Your task to perform on an android device: What's on my calendar tomorrow? Image 0: 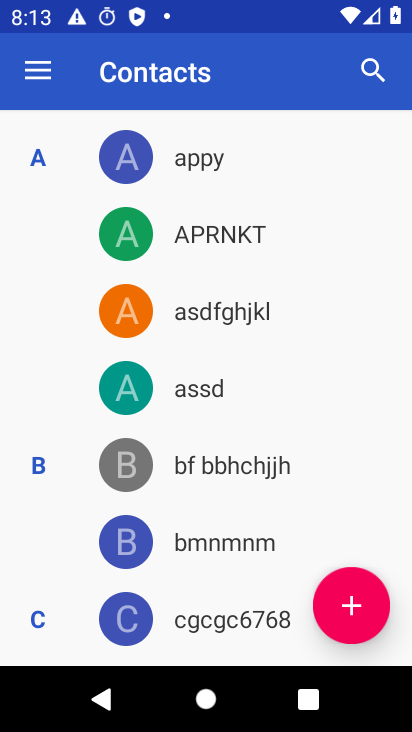
Step 0: press home button
Your task to perform on an android device: What's on my calendar tomorrow? Image 1: 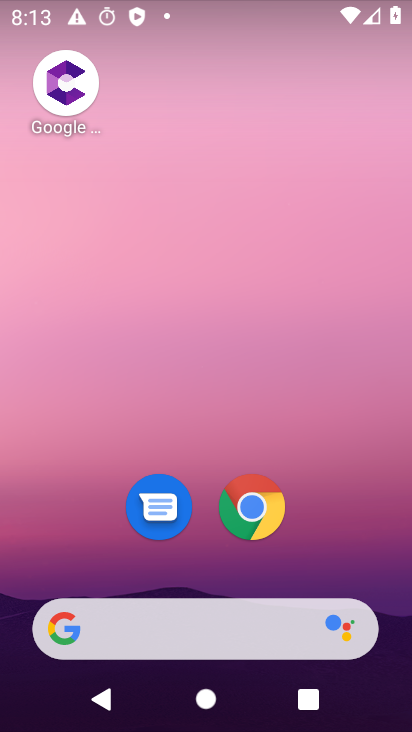
Step 1: drag from (208, 622) to (371, 37)
Your task to perform on an android device: What's on my calendar tomorrow? Image 2: 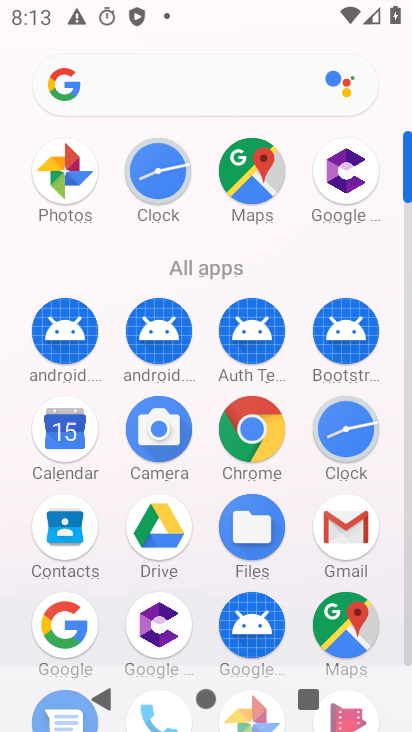
Step 2: click (54, 431)
Your task to perform on an android device: What's on my calendar tomorrow? Image 3: 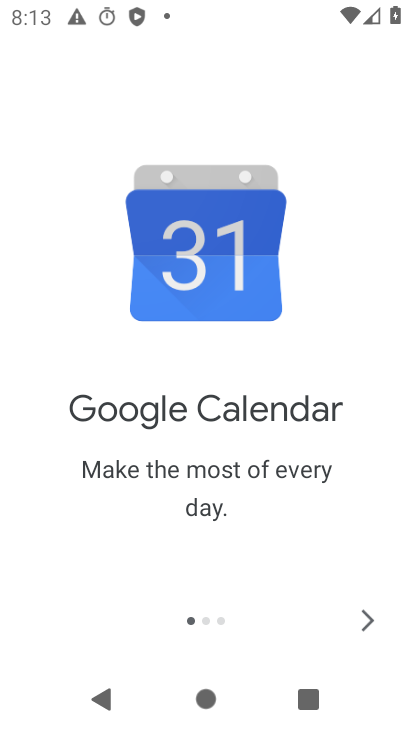
Step 3: click (367, 615)
Your task to perform on an android device: What's on my calendar tomorrow? Image 4: 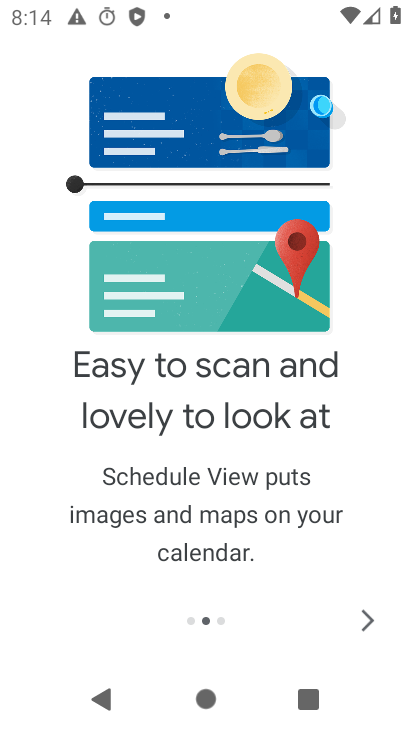
Step 4: click (367, 615)
Your task to perform on an android device: What's on my calendar tomorrow? Image 5: 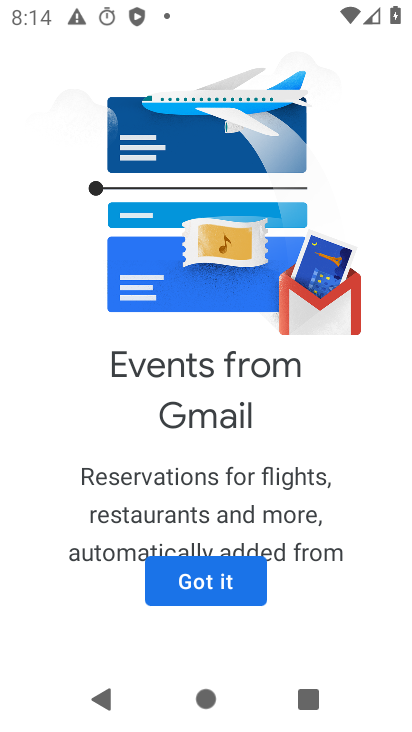
Step 5: click (245, 595)
Your task to perform on an android device: What's on my calendar tomorrow? Image 6: 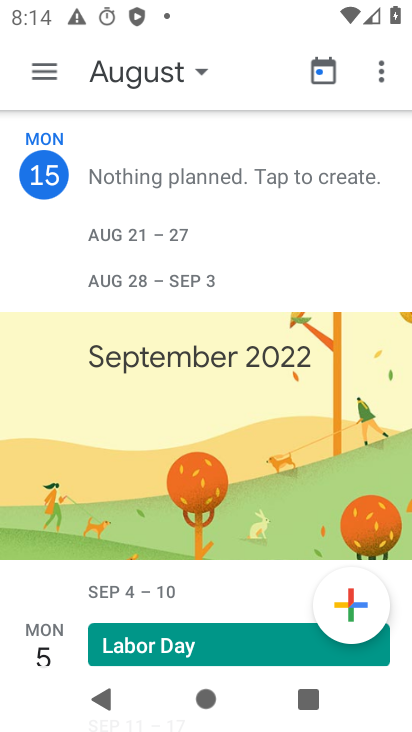
Step 6: click (145, 74)
Your task to perform on an android device: What's on my calendar tomorrow? Image 7: 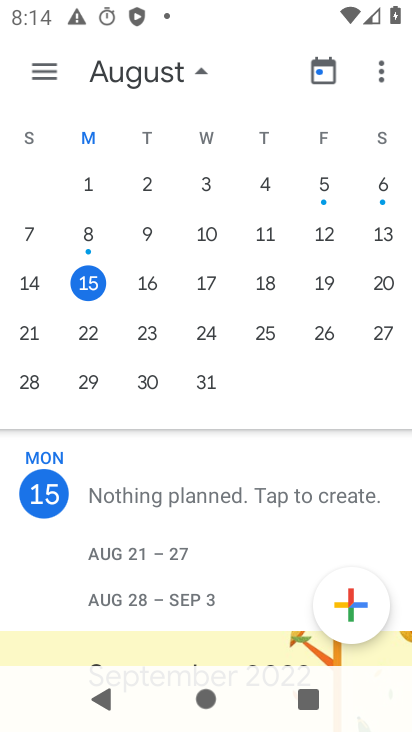
Step 7: click (149, 288)
Your task to perform on an android device: What's on my calendar tomorrow? Image 8: 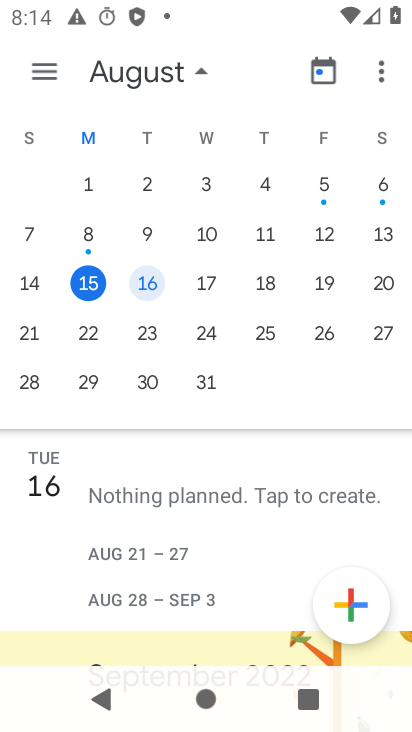
Step 8: click (54, 74)
Your task to perform on an android device: What's on my calendar tomorrow? Image 9: 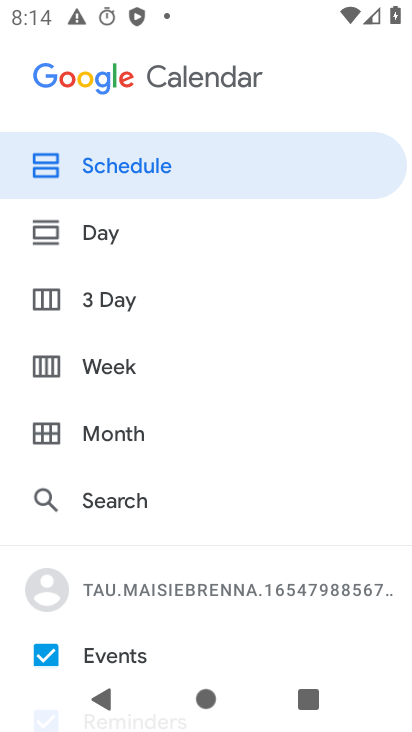
Step 9: click (119, 236)
Your task to perform on an android device: What's on my calendar tomorrow? Image 10: 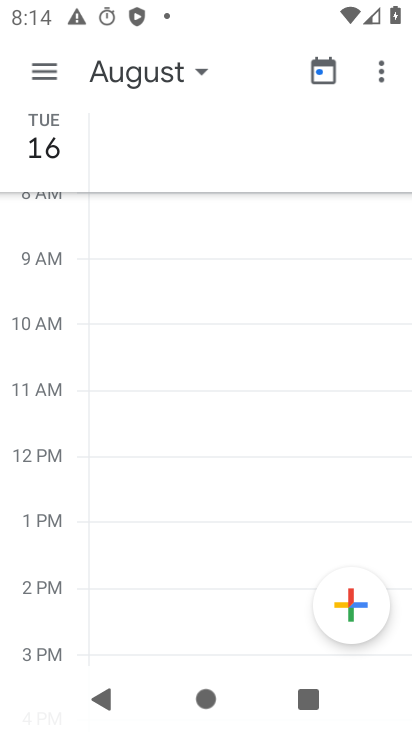
Step 10: click (56, 65)
Your task to perform on an android device: What's on my calendar tomorrow? Image 11: 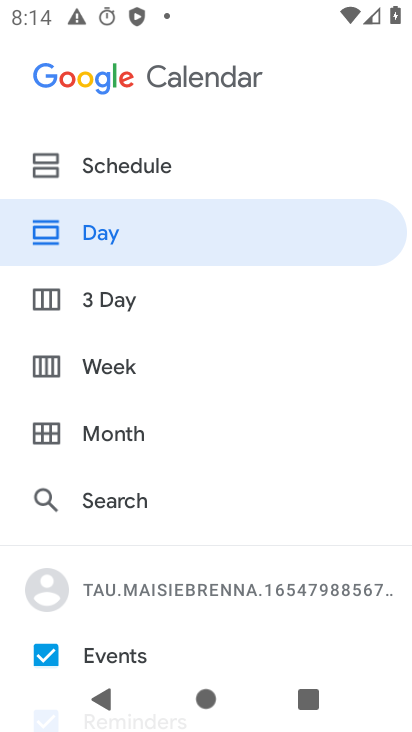
Step 11: click (125, 158)
Your task to perform on an android device: What's on my calendar tomorrow? Image 12: 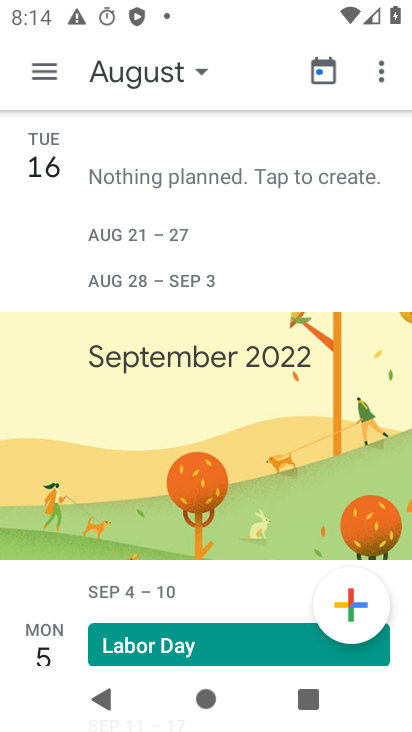
Step 12: task complete